Your task to perform on an android device: Check the weather Image 0: 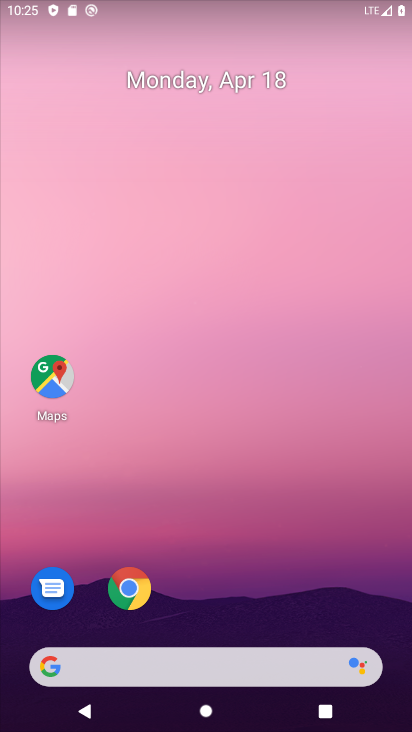
Step 0: drag from (29, 140) to (407, 151)
Your task to perform on an android device: Check the weather Image 1: 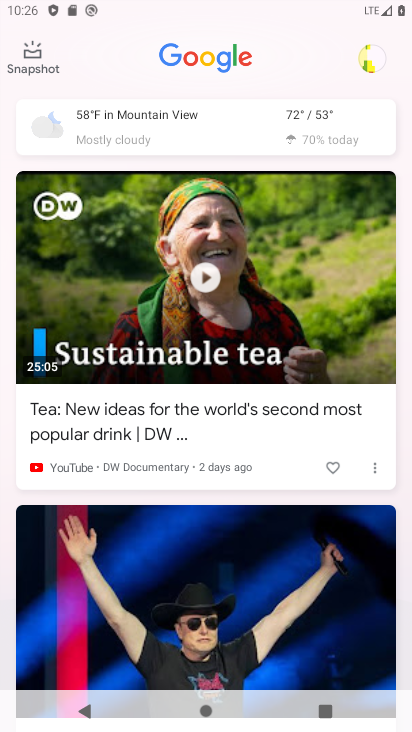
Step 1: click (302, 115)
Your task to perform on an android device: Check the weather Image 2: 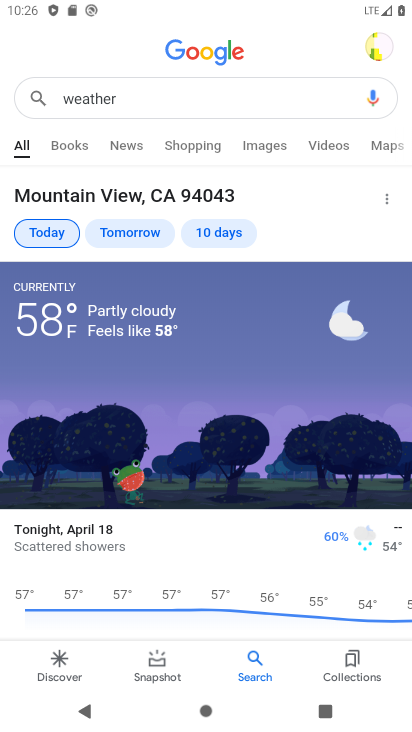
Step 2: task complete